Your task to perform on an android device: Open Amazon Image 0: 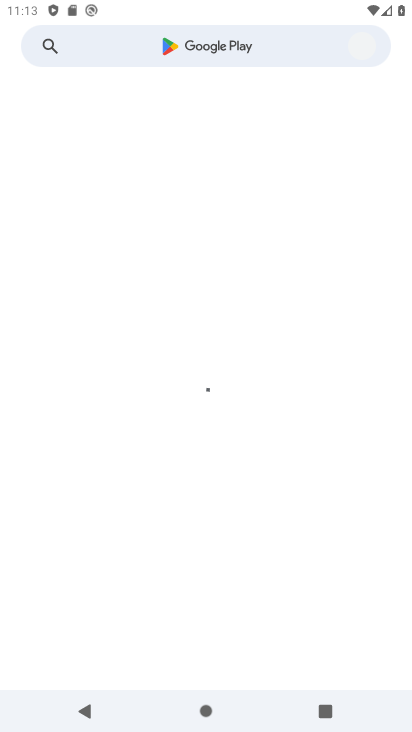
Step 0: press home button
Your task to perform on an android device: Open Amazon Image 1: 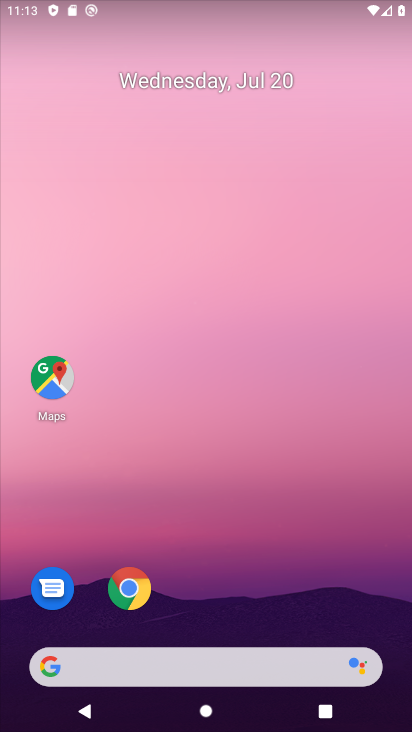
Step 1: click (127, 584)
Your task to perform on an android device: Open Amazon Image 2: 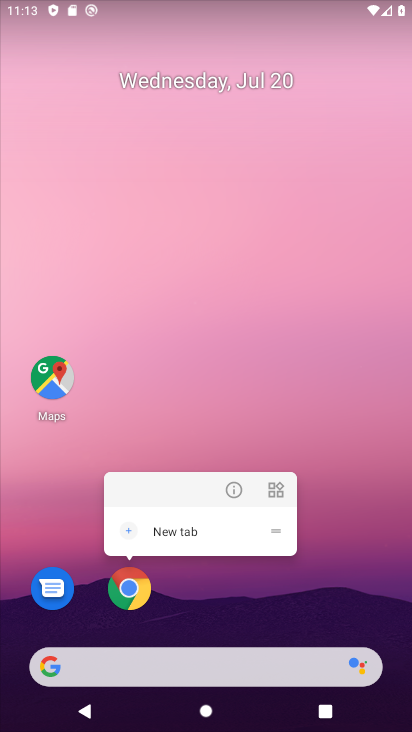
Step 2: click (127, 584)
Your task to perform on an android device: Open Amazon Image 3: 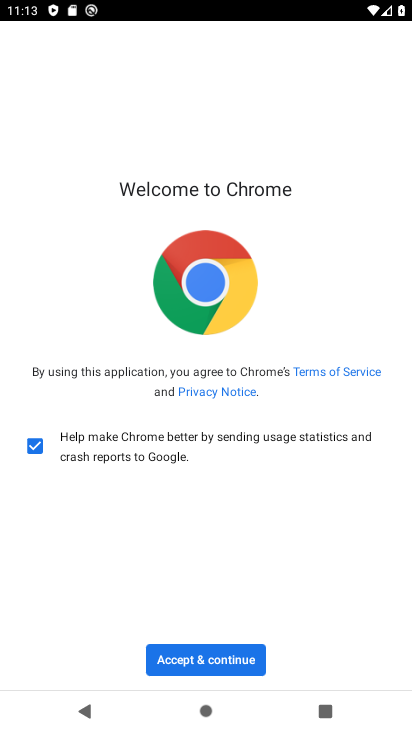
Step 3: click (200, 657)
Your task to perform on an android device: Open Amazon Image 4: 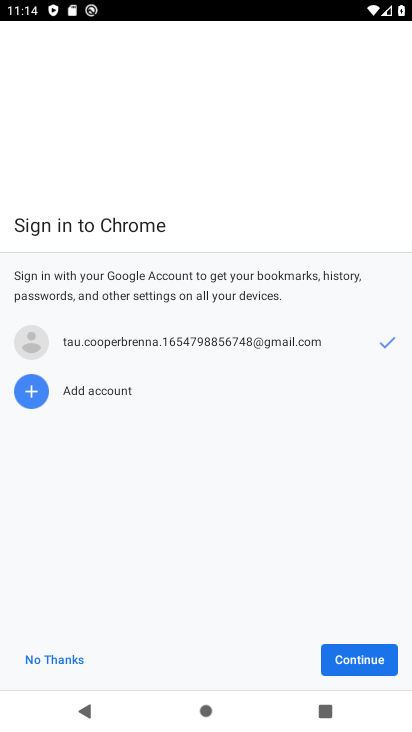
Step 4: click (371, 659)
Your task to perform on an android device: Open Amazon Image 5: 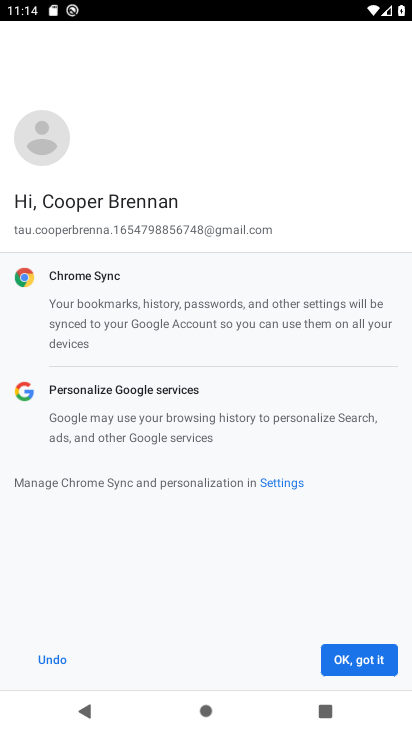
Step 5: click (369, 662)
Your task to perform on an android device: Open Amazon Image 6: 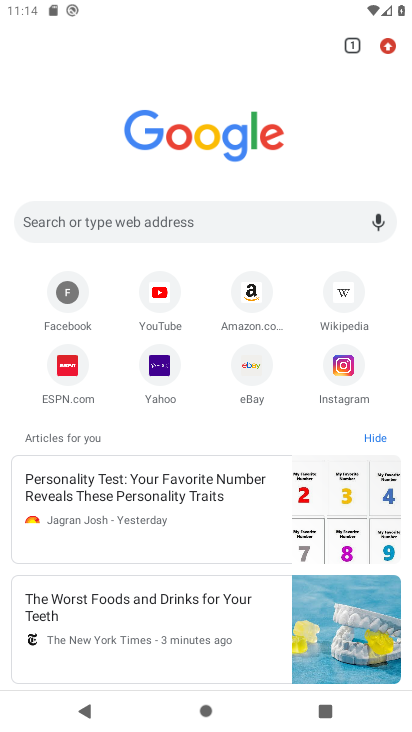
Step 6: click (247, 287)
Your task to perform on an android device: Open Amazon Image 7: 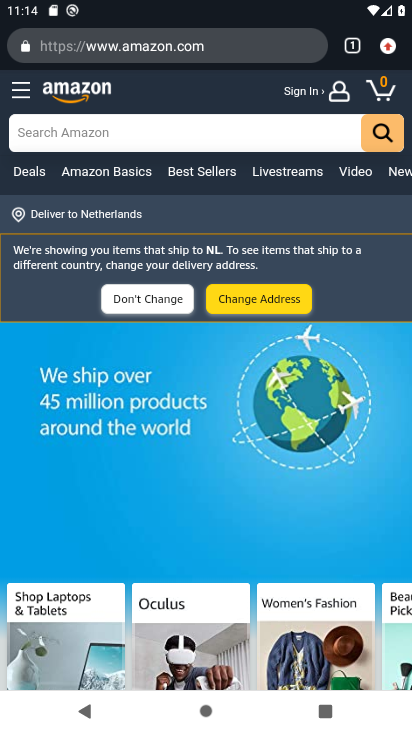
Step 7: task complete